Your task to perform on an android device: turn off location Image 0: 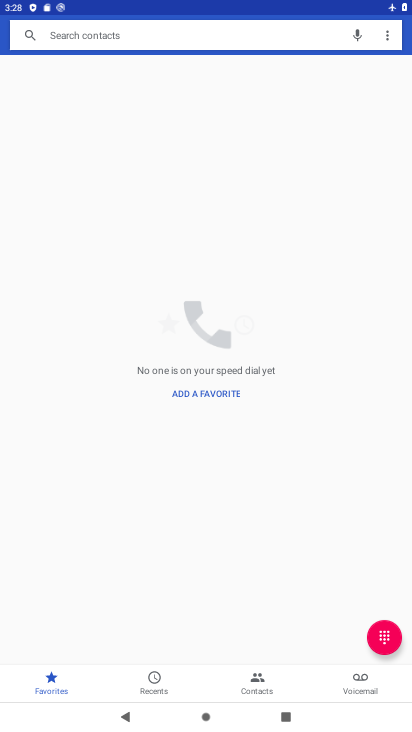
Step 0: press home button
Your task to perform on an android device: turn off location Image 1: 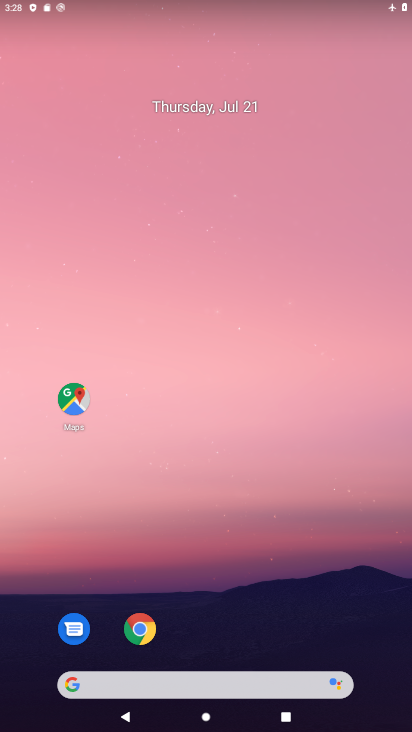
Step 1: drag from (357, 8) to (253, 543)
Your task to perform on an android device: turn off location Image 2: 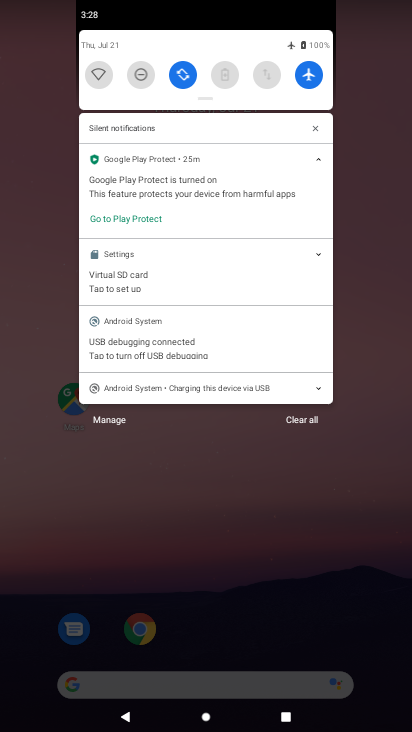
Step 2: drag from (273, 94) to (267, 421)
Your task to perform on an android device: turn off location Image 3: 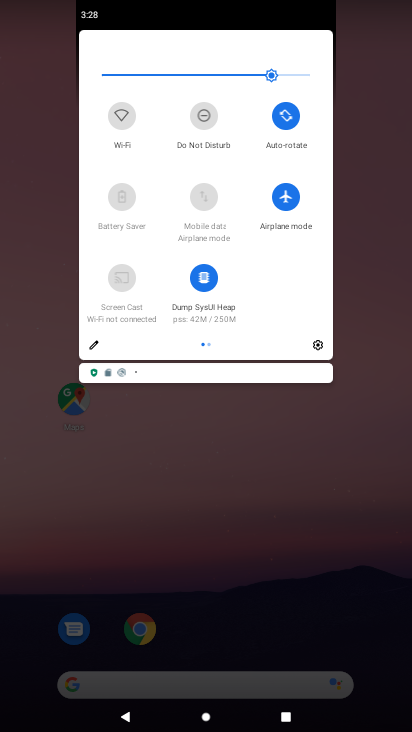
Step 3: click (91, 344)
Your task to perform on an android device: turn off location Image 4: 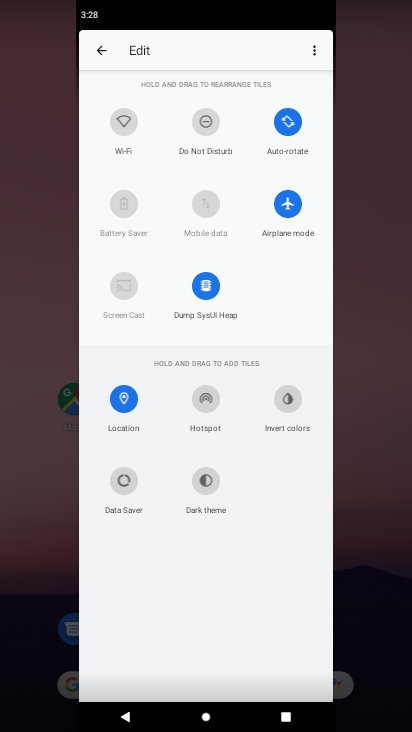
Step 4: drag from (122, 395) to (264, 286)
Your task to perform on an android device: turn off location Image 5: 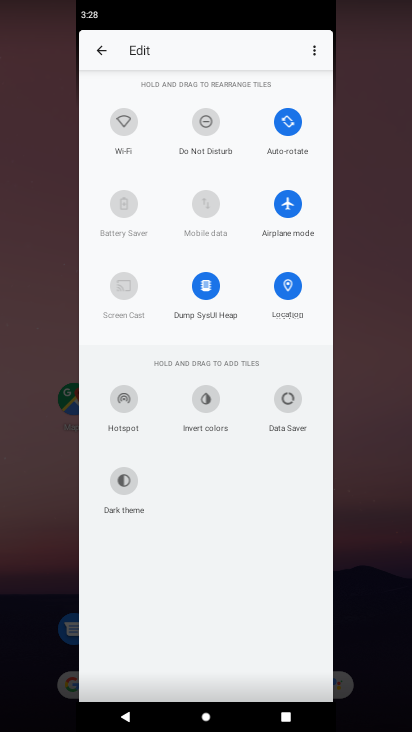
Step 5: press back button
Your task to perform on an android device: turn off location Image 6: 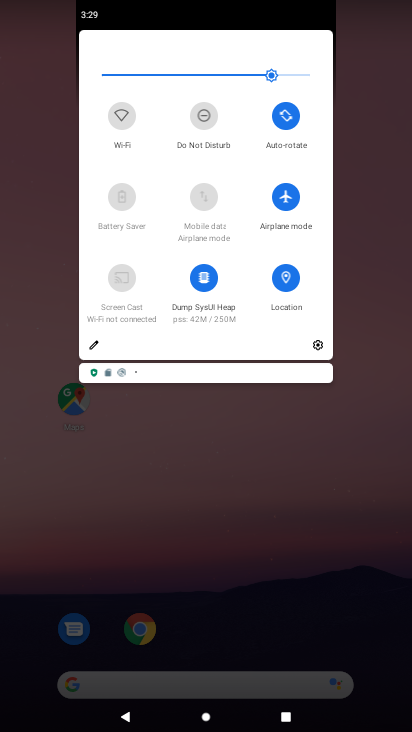
Step 6: click (288, 278)
Your task to perform on an android device: turn off location Image 7: 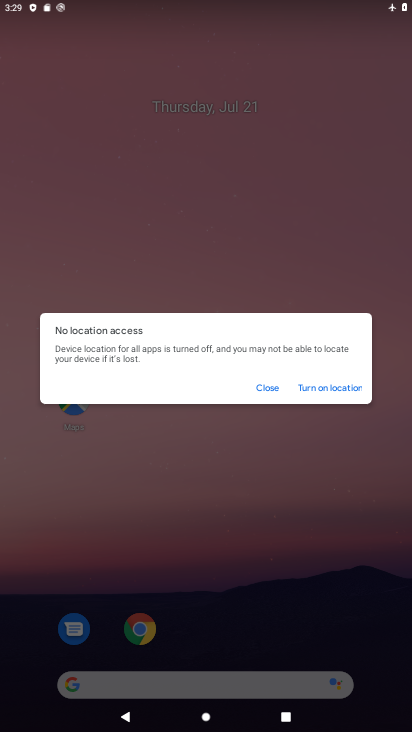
Step 7: task complete